Your task to perform on an android device: turn off data saver in the chrome app Image 0: 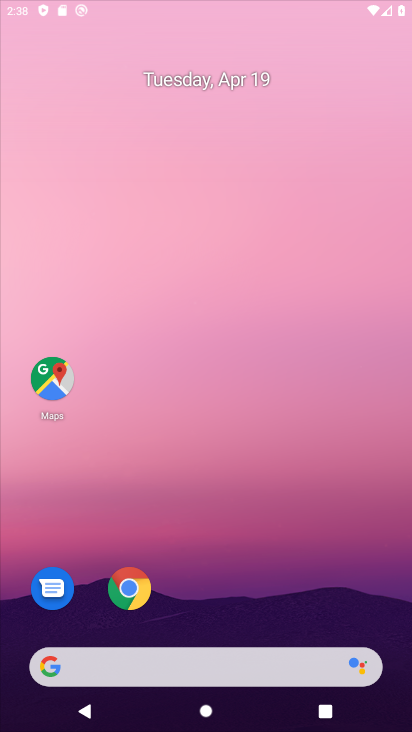
Step 0: click (245, 222)
Your task to perform on an android device: turn off data saver in the chrome app Image 1: 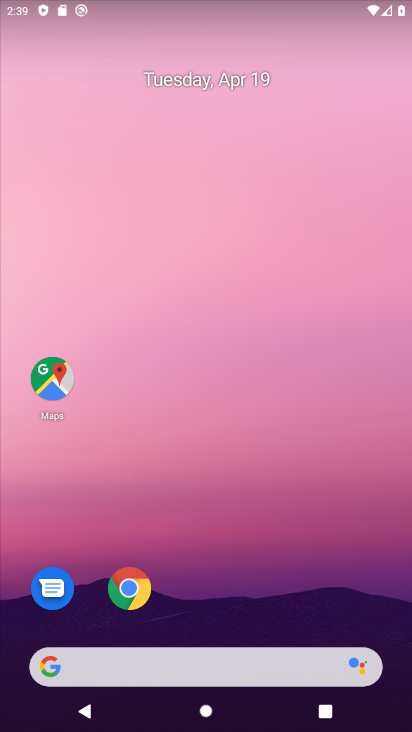
Step 1: drag from (249, 507) to (290, 136)
Your task to perform on an android device: turn off data saver in the chrome app Image 2: 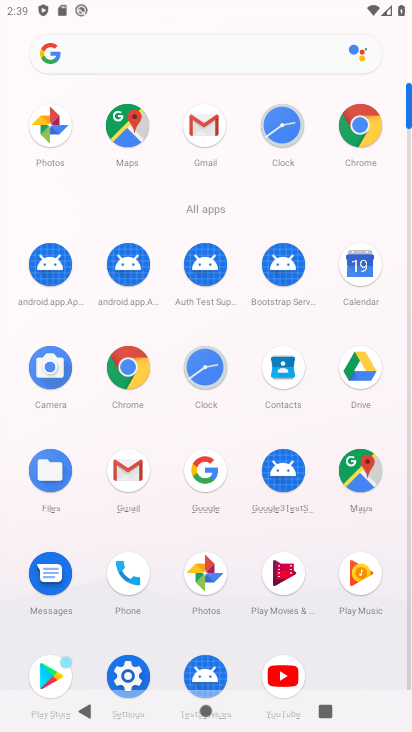
Step 2: click (116, 358)
Your task to perform on an android device: turn off data saver in the chrome app Image 3: 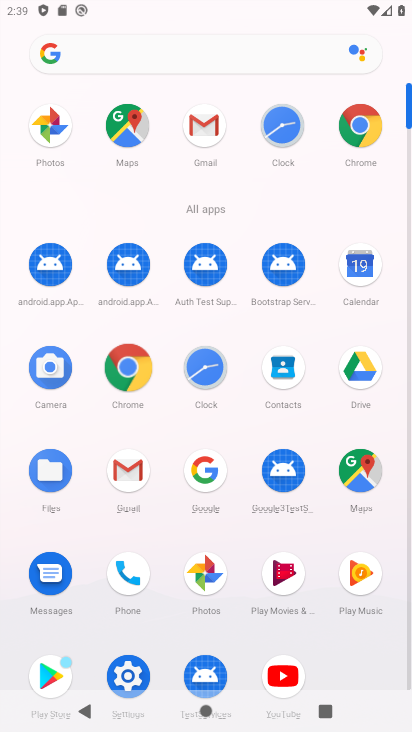
Step 3: click (121, 355)
Your task to perform on an android device: turn off data saver in the chrome app Image 4: 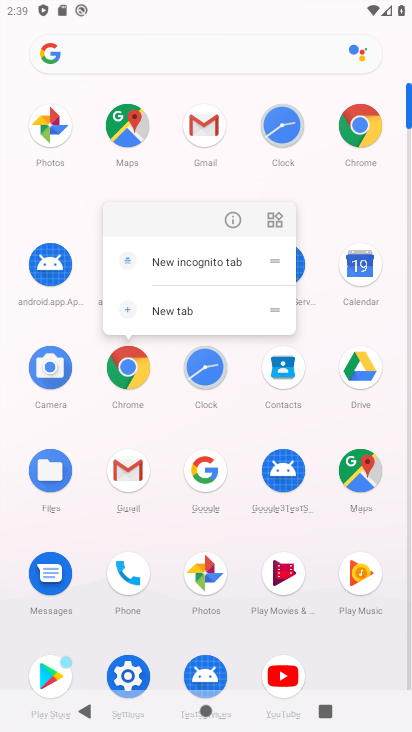
Step 4: click (132, 363)
Your task to perform on an android device: turn off data saver in the chrome app Image 5: 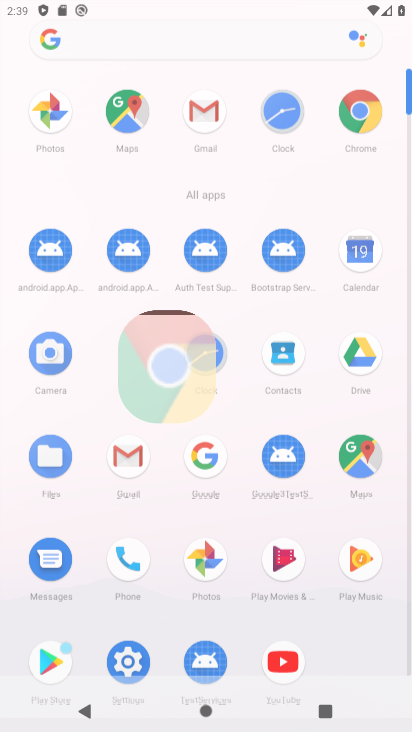
Step 5: click (132, 363)
Your task to perform on an android device: turn off data saver in the chrome app Image 6: 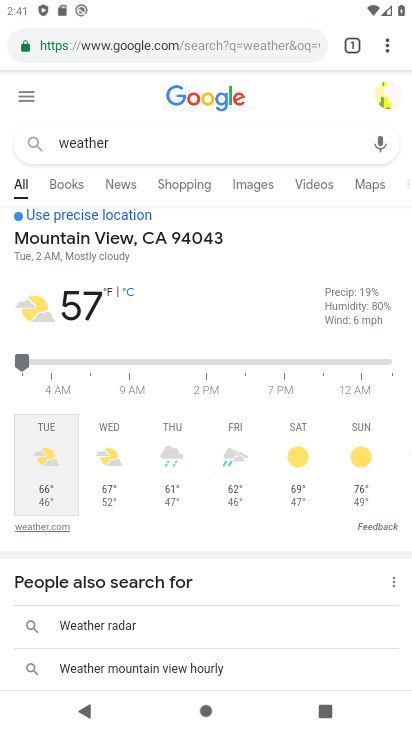
Step 6: click (388, 31)
Your task to perform on an android device: turn off data saver in the chrome app Image 7: 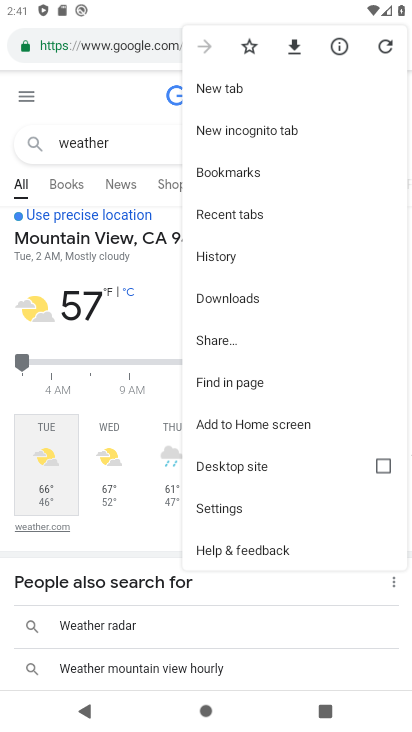
Step 7: click (256, 256)
Your task to perform on an android device: turn off data saver in the chrome app Image 8: 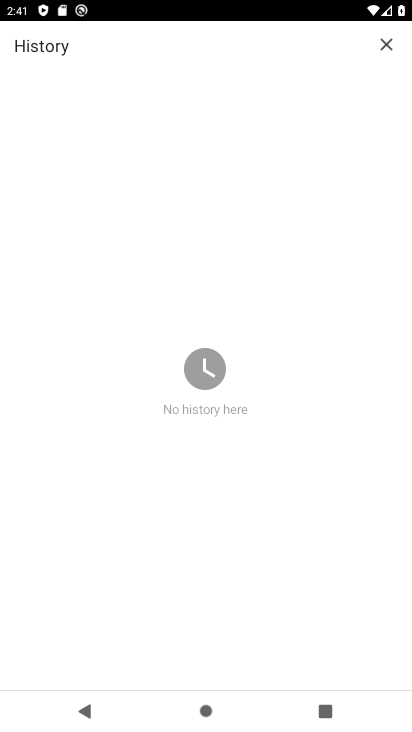
Step 8: click (387, 38)
Your task to perform on an android device: turn off data saver in the chrome app Image 9: 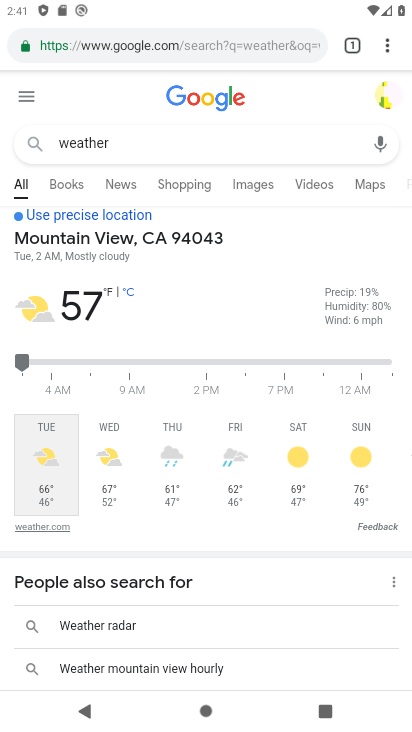
Step 9: click (389, 47)
Your task to perform on an android device: turn off data saver in the chrome app Image 10: 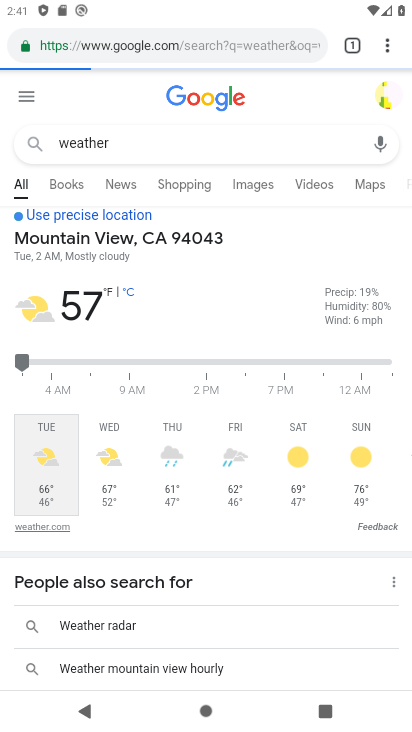
Step 10: drag from (158, 560) to (313, 98)
Your task to perform on an android device: turn off data saver in the chrome app Image 11: 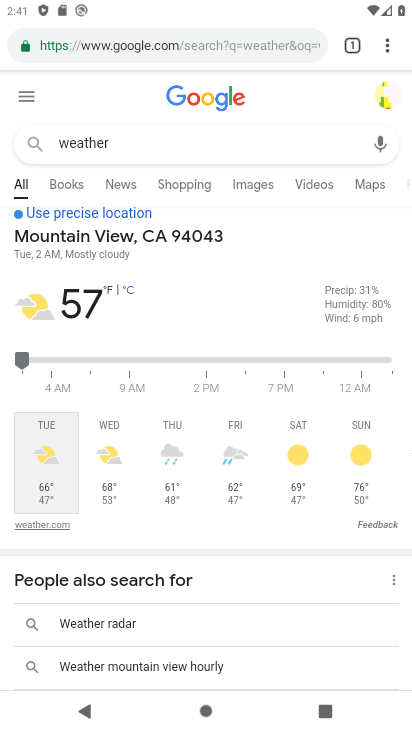
Step 11: drag from (392, 45) to (226, 497)
Your task to perform on an android device: turn off data saver in the chrome app Image 12: 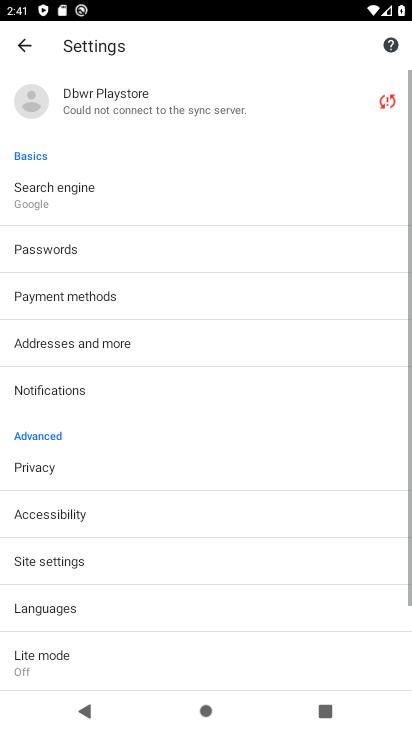
Step 12: drag from (181, 549) to (313, 31)
Your task to perform on an android device: turn off data saver in the chrome app Image 13: 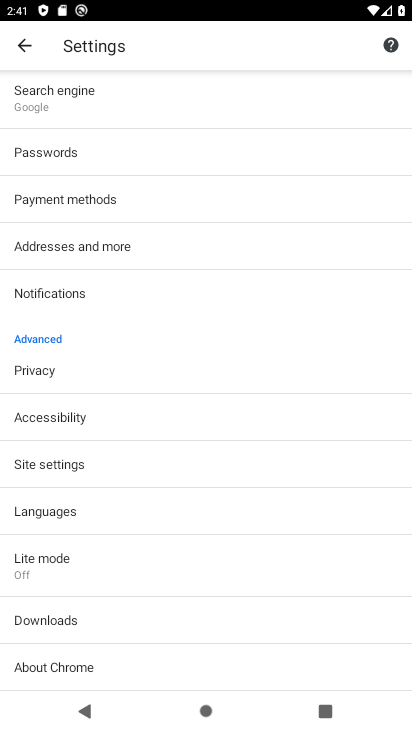
Step 13: click (89, 568)
Your task to perform on an android device: turn off data saver in the chrome app Image 14: 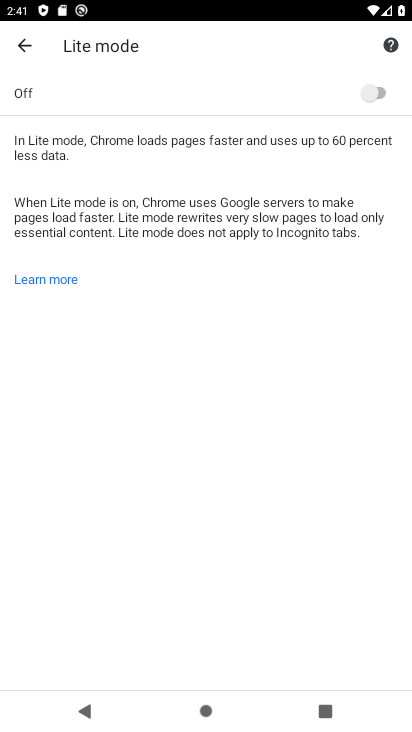
Step 14: task complete